Your task to perform on an android device: clear history in the chrome app Image 0: 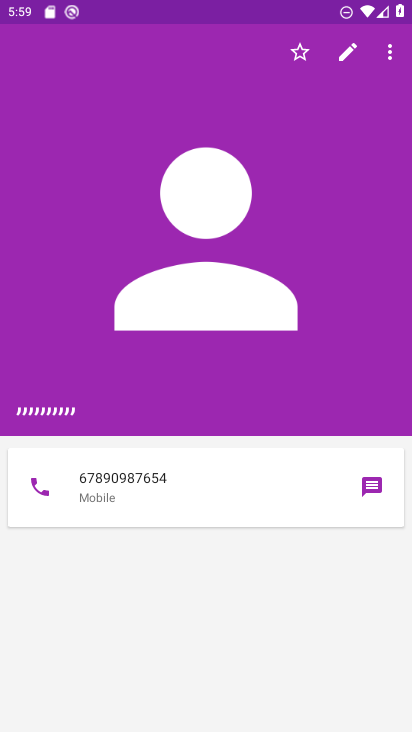
Step 0: press home button
Your task to perform on an android device: clear history in the chrome app Image 1: 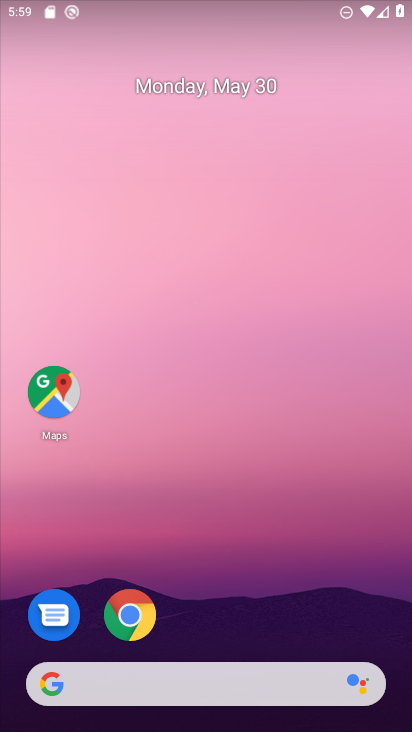
Step 1: click (126, 625)
Your task to perform on an android device: clear history in the chrome app Image 2: 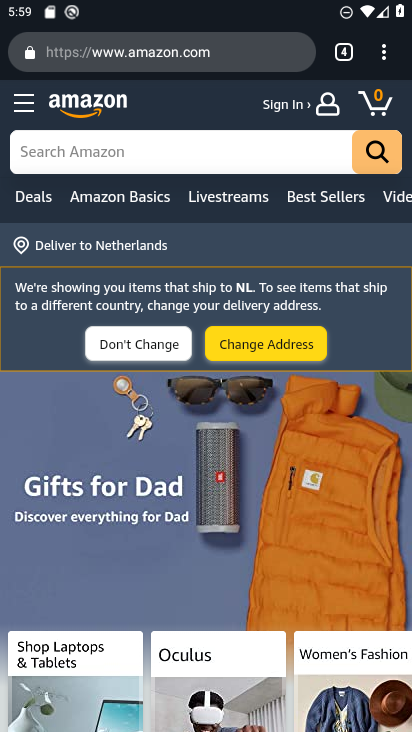
Step 2: click (394, 54)
Your task to perform on an android device: clear history in the chrome app Image 3: 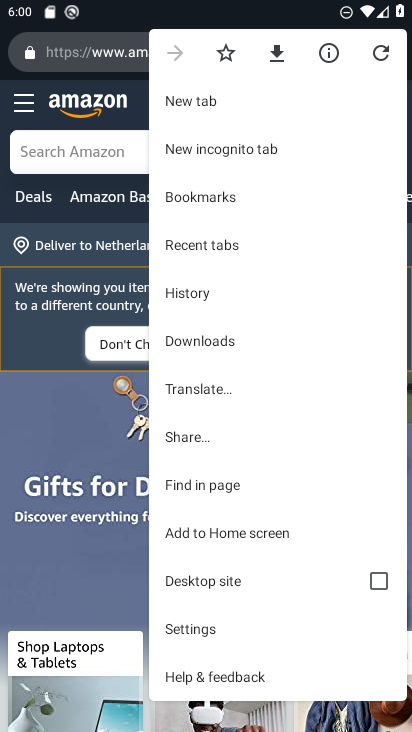
Step 3: click (177, 301)
Your task to perform on an android device: clear history in the chrome app Image 4: 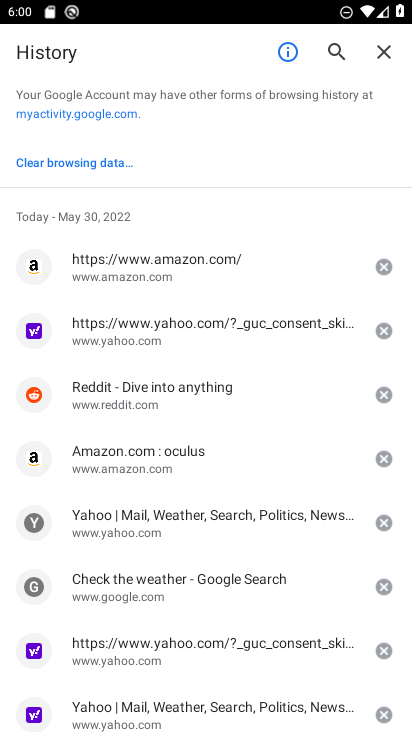
Step 4: click (92, 168)
Your task to perform on an android device: clear history in the chrome app Image 5: 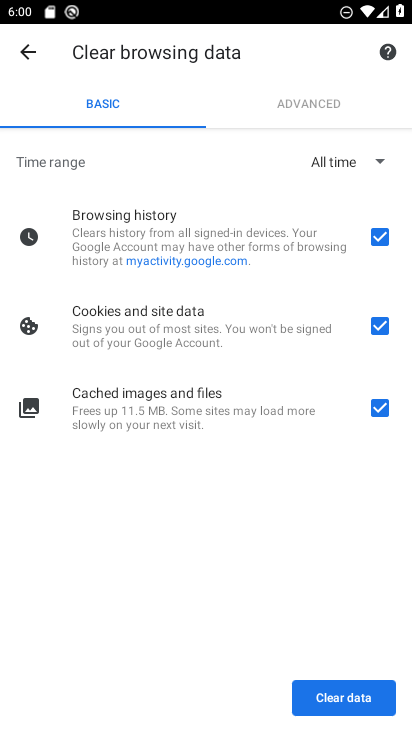
Step 5: click (384, 327)
Your task to perform on an android device: clear history in the chrome app Image 6: 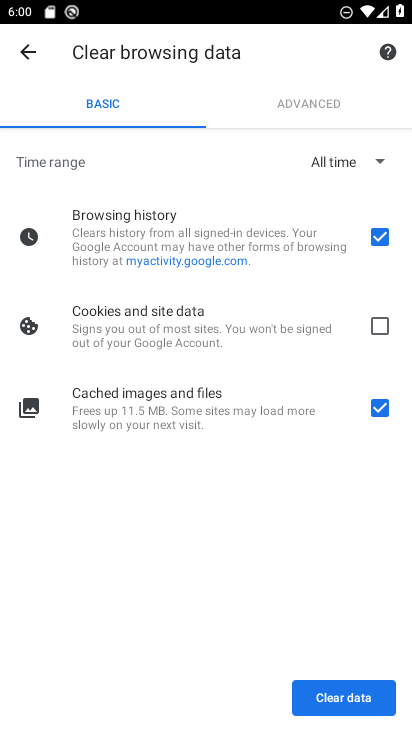
Step 6: click (378, 413)
Your task to perform on an android device: clear history in the chrome app Image 7: 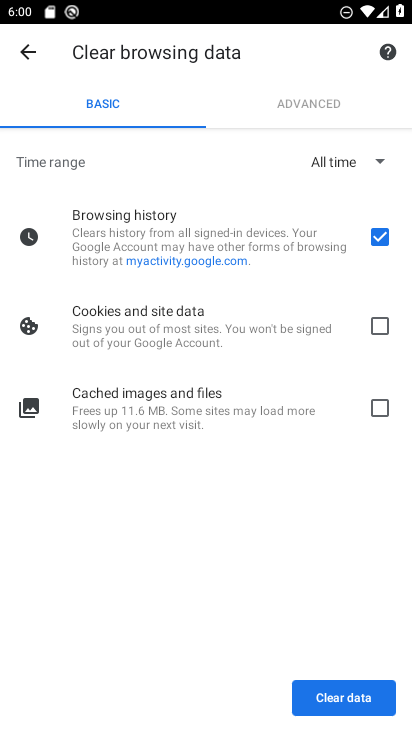
Step 7: click (330, 704)
Your task to perform on an android device: clear history in the chrome app Image 8: 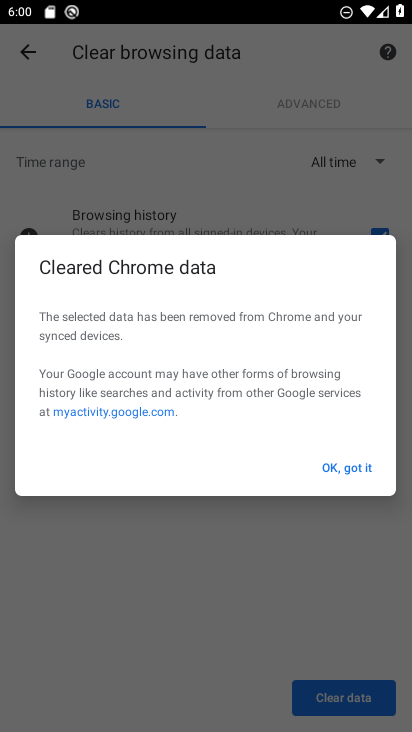
Step 8: click (328, 479)
Your task to perform on an android device: clear history in the chrome app Image 9: 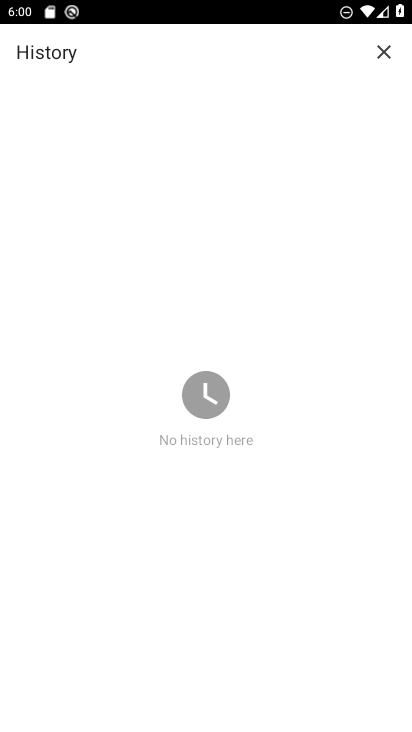
Step 9: task complete